Your task to perform on an android device: add a contact in the contacts app Image 0: 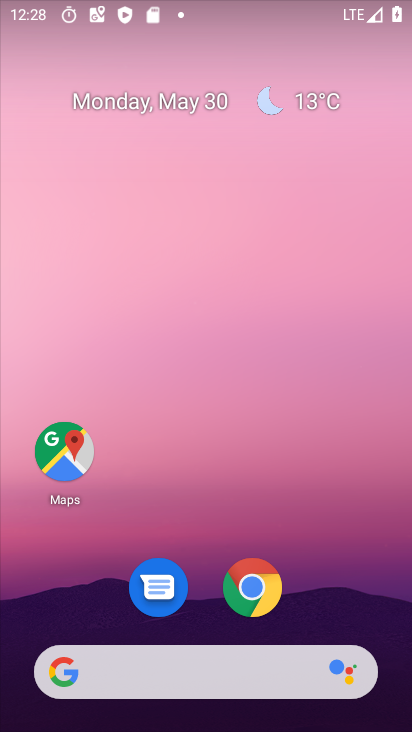
Step 0: drag from (304, 542) to (322, 175)
Your task to perform on an android device: add a contact in the contacts app Image 1: 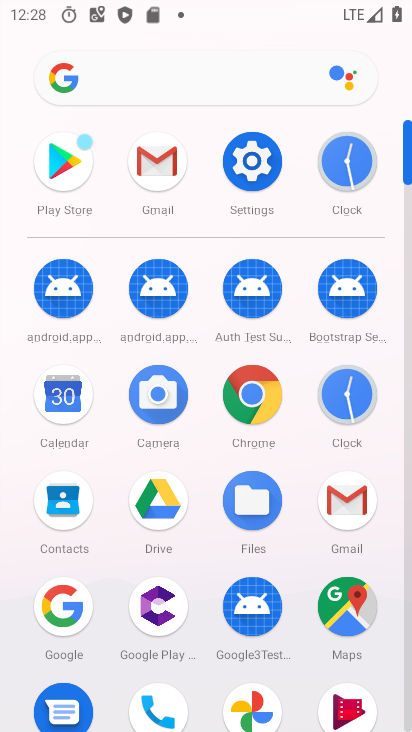
Step 1: click (57, 501)
Your task to perform on an android device: add a contact in the contacts app Image 2: 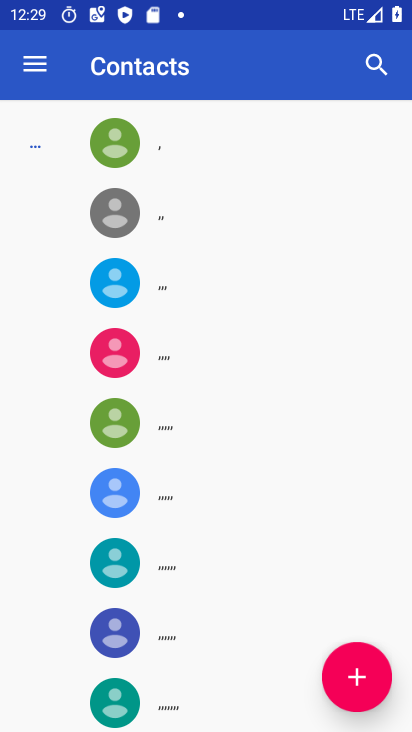
Step 2: click (379, 668)
Your task to perform on an android device: add a contact in the contacts app Image 3: 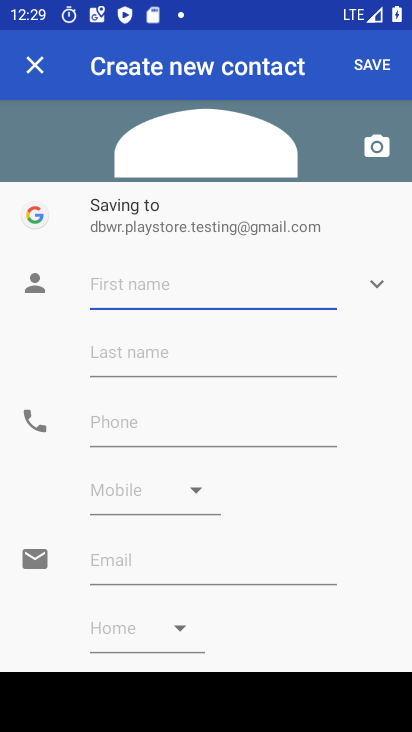
Step 3: type "dekjho"
Your task to perform on an android device: add a contact in the contacts app Image 4: 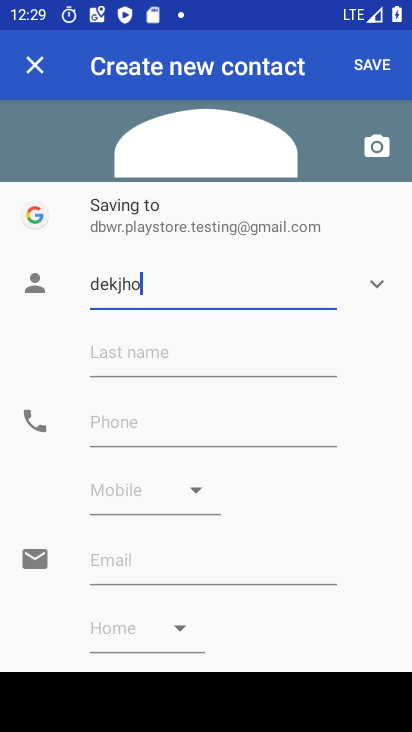
Step 4: click (366, 65)
Your task to perform on an android device: add a contact in the contacts app Image 5: 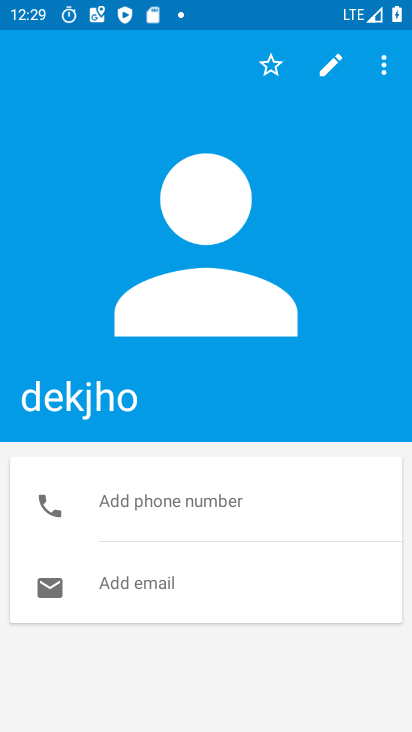
Step 5: task complete